Your task to perform on an android device: Go to calendar. Show me events next week Image 0: 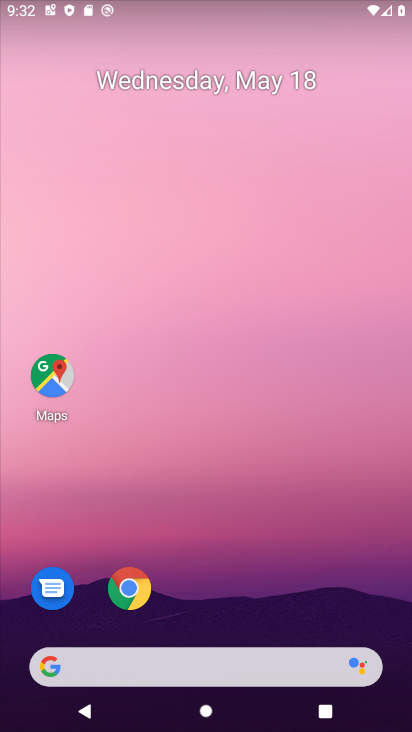
Step 0: press home button
Your task to perform on an android device: Go to calendar. Show me events next week Image 1: 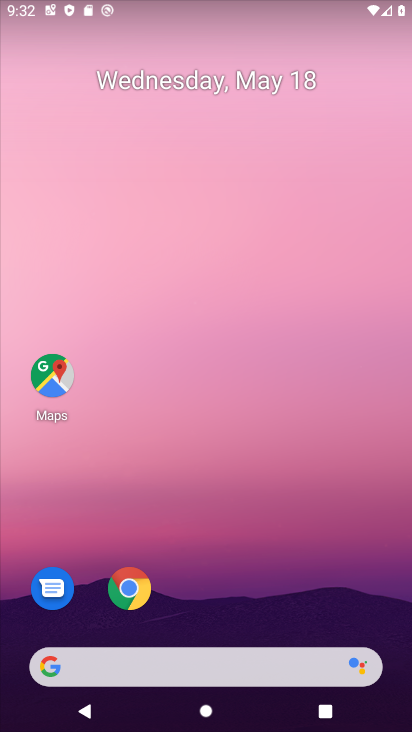
Step 1: drag from (264, 677) to (232, 73)
Your task to perform on an android device: Go to calendar. Show me events next week Image 2: 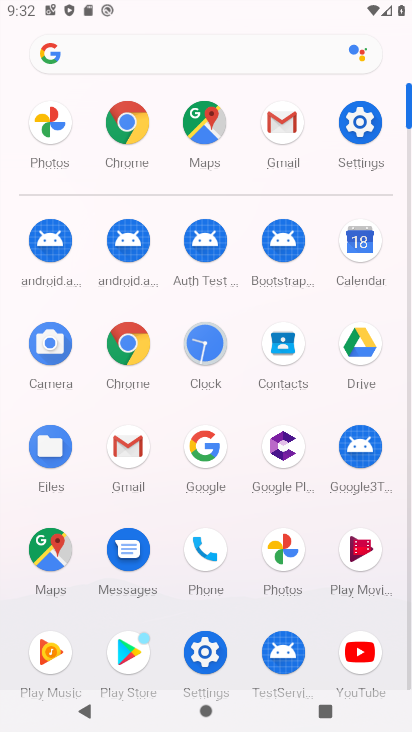
Step 2: click (335, 254)
Your task to perform on an android device: Go to calendar. Show me events next week Image 3: 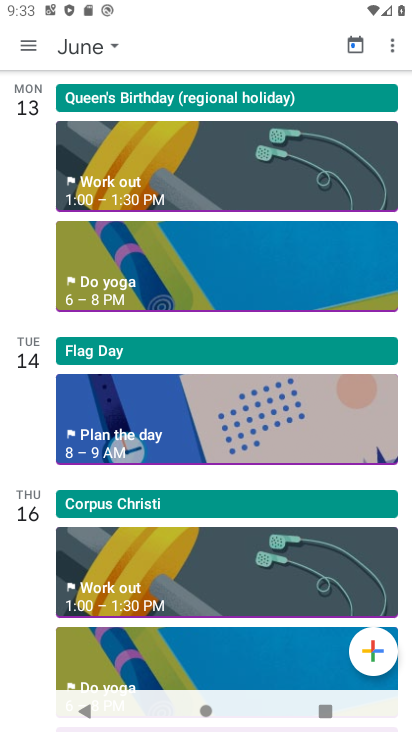
Step 3: click (31, 43)
Your task to perform on an android device: Go to calendar. Show me events next week Image 4: 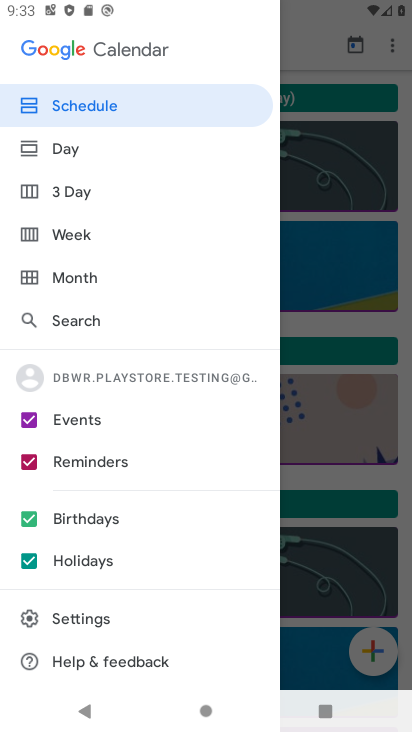
Step 4: click (81, 280)
Your task to perform on an android device: Go to calendar. Show me events next week Image 5: 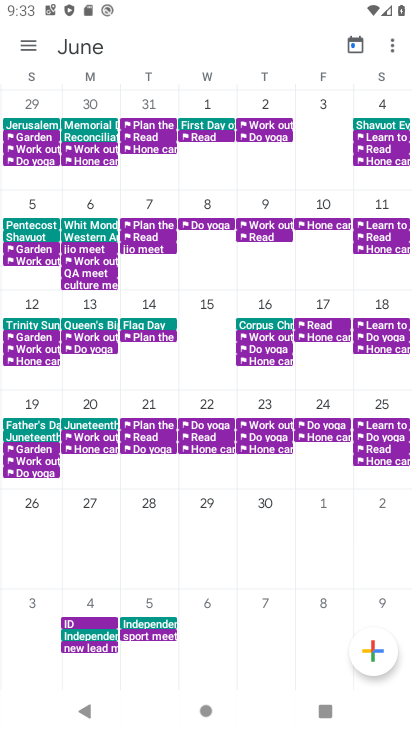
Step 5: drag from (51, 357) to (407, 242)
Your task to perform on an android device: Go to calendar. Show me events next week Image 6: 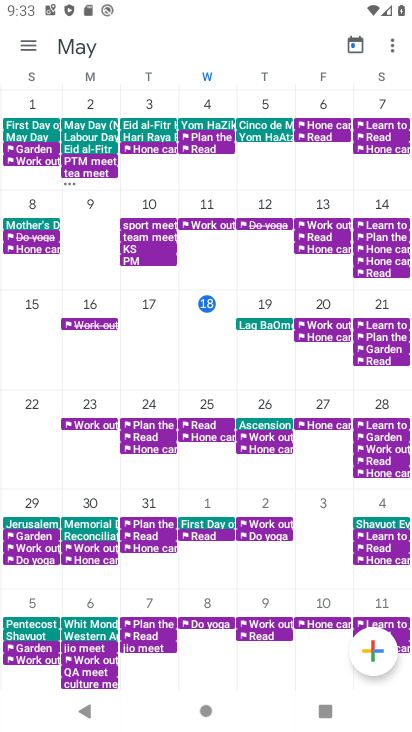
Step 6: click (85, 423)
Your task to perform on an android device: Go to calendar. Show me events next week Image 7: 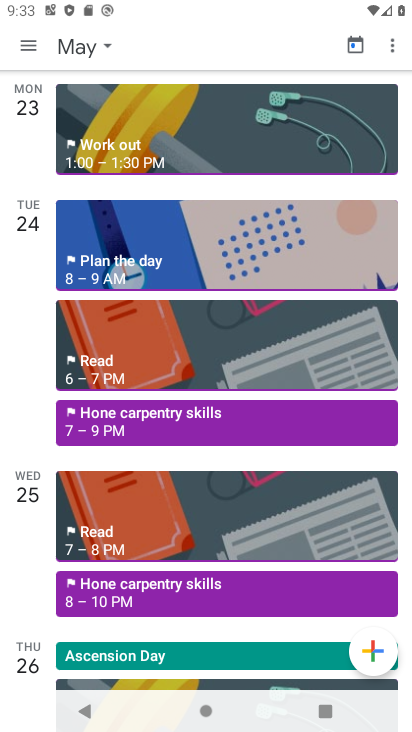
Step 7: task complete